Your task to perform on an android device: star an email in the gmail app Image 0: 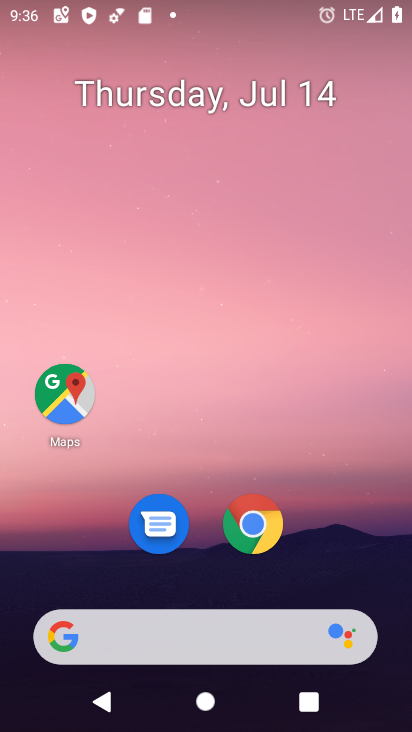
Step 0: drag from (340, 546) to (321, 38)
Your task to perform on an android device: star an email in the gmail app Image 1: 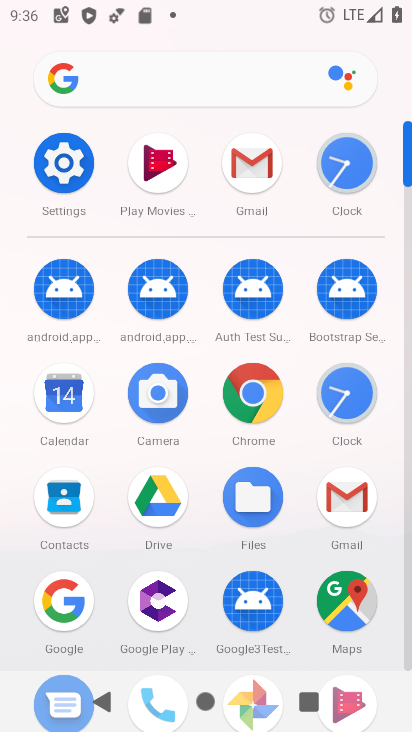
Step 1: click (236, 165)
Your task to perform on an android device: star an email in the gmail app Image 2: 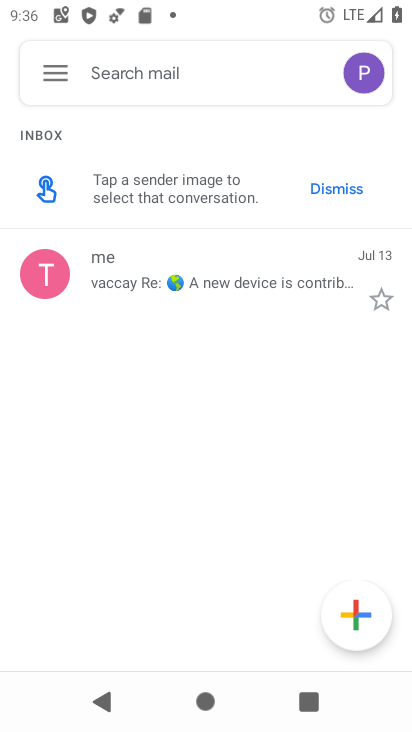
Step 2: click (378, 300)
Your task to perform on an android device: star an email in the gmail app Image 3: 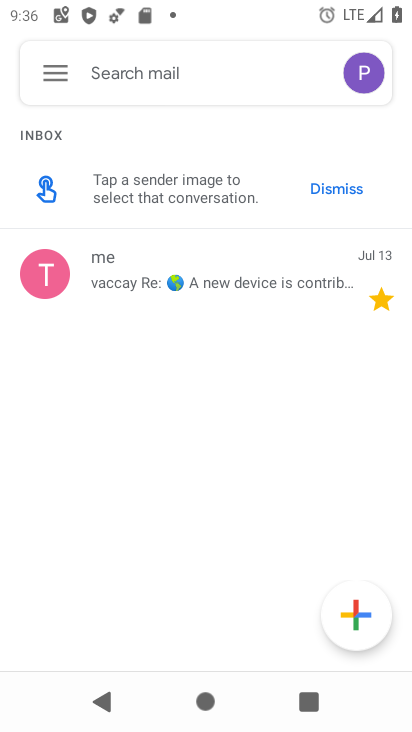
Step 3: task complete